Your task to perform on an android device: change your default location settings in chrome Image 0: 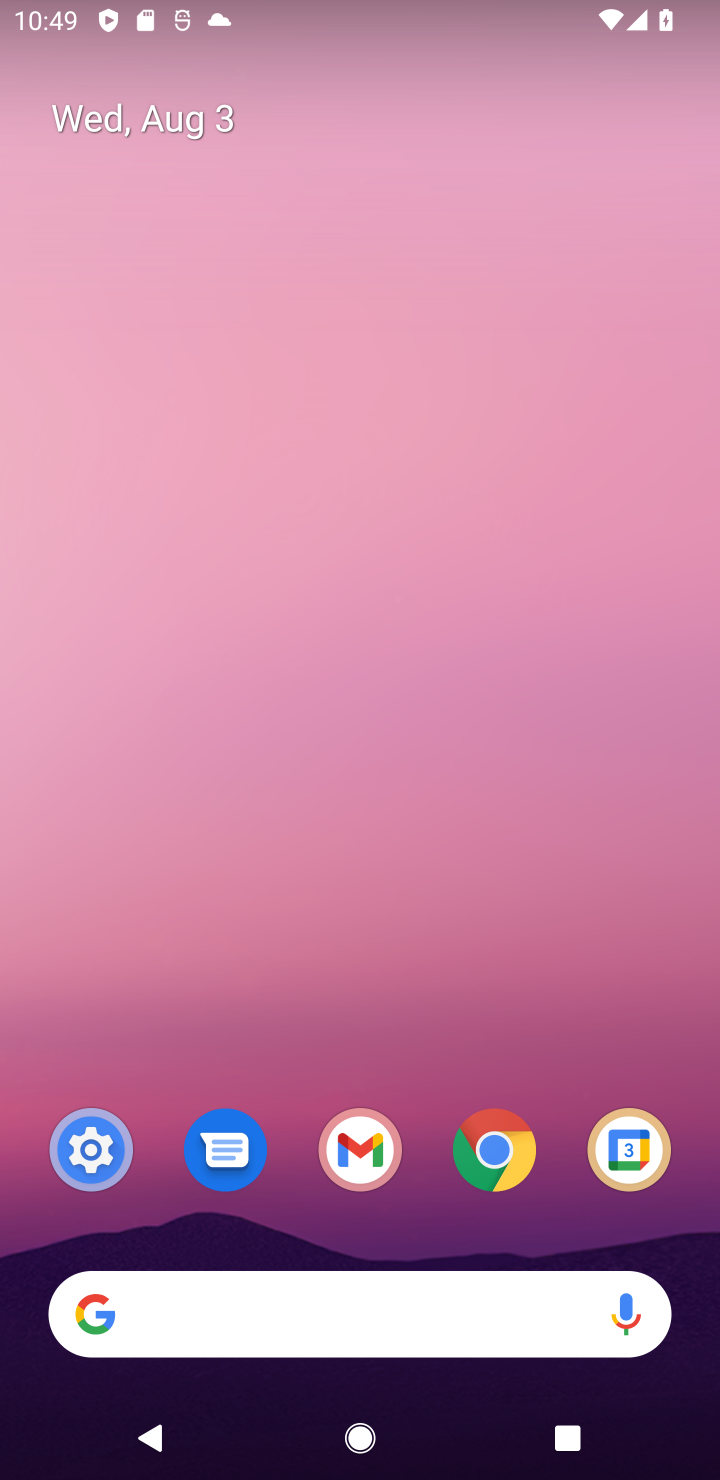
Step 0: press home button
Your task to perform on an android device: change your default location settings in chrome Image 1: 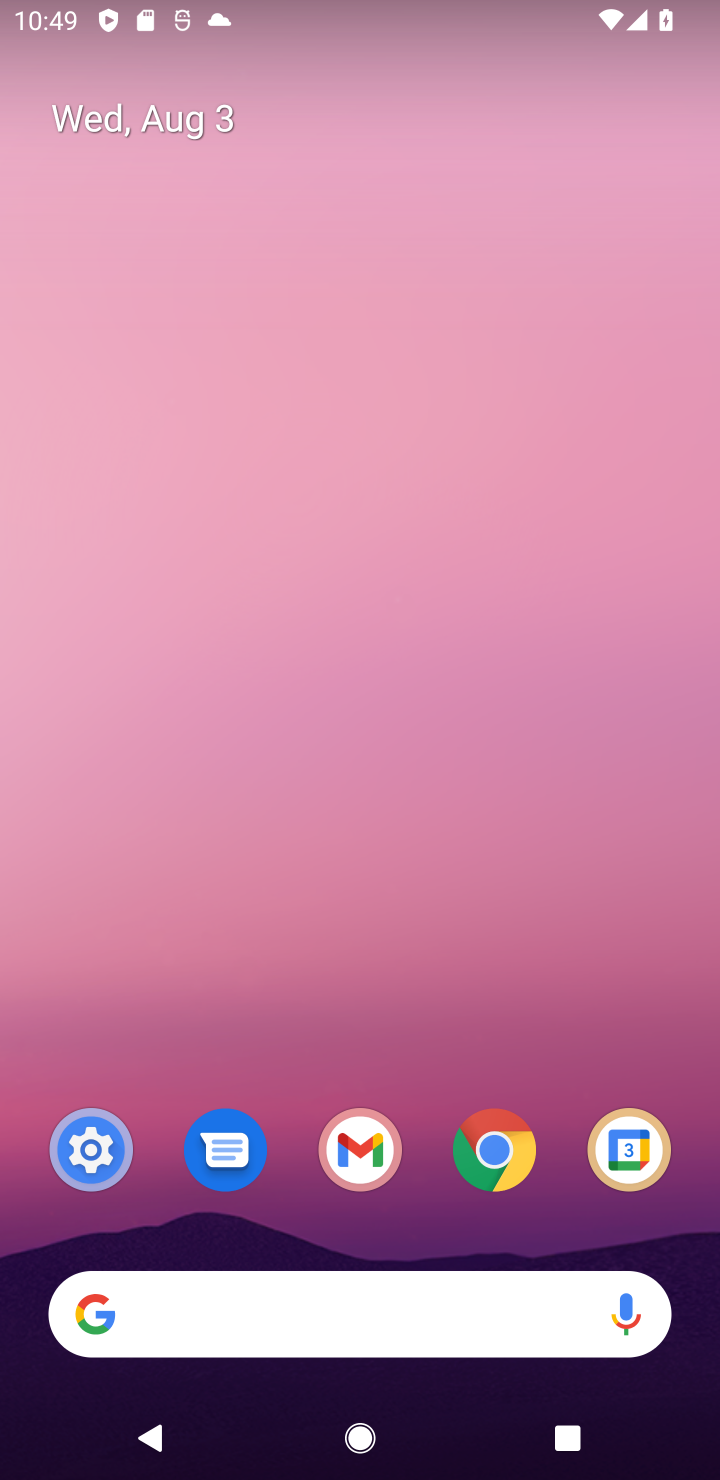
Step 1: drag from (554, 1026) to (563, 352)
Your task to perform on an android device: change your default location settings in chrome Image 2: 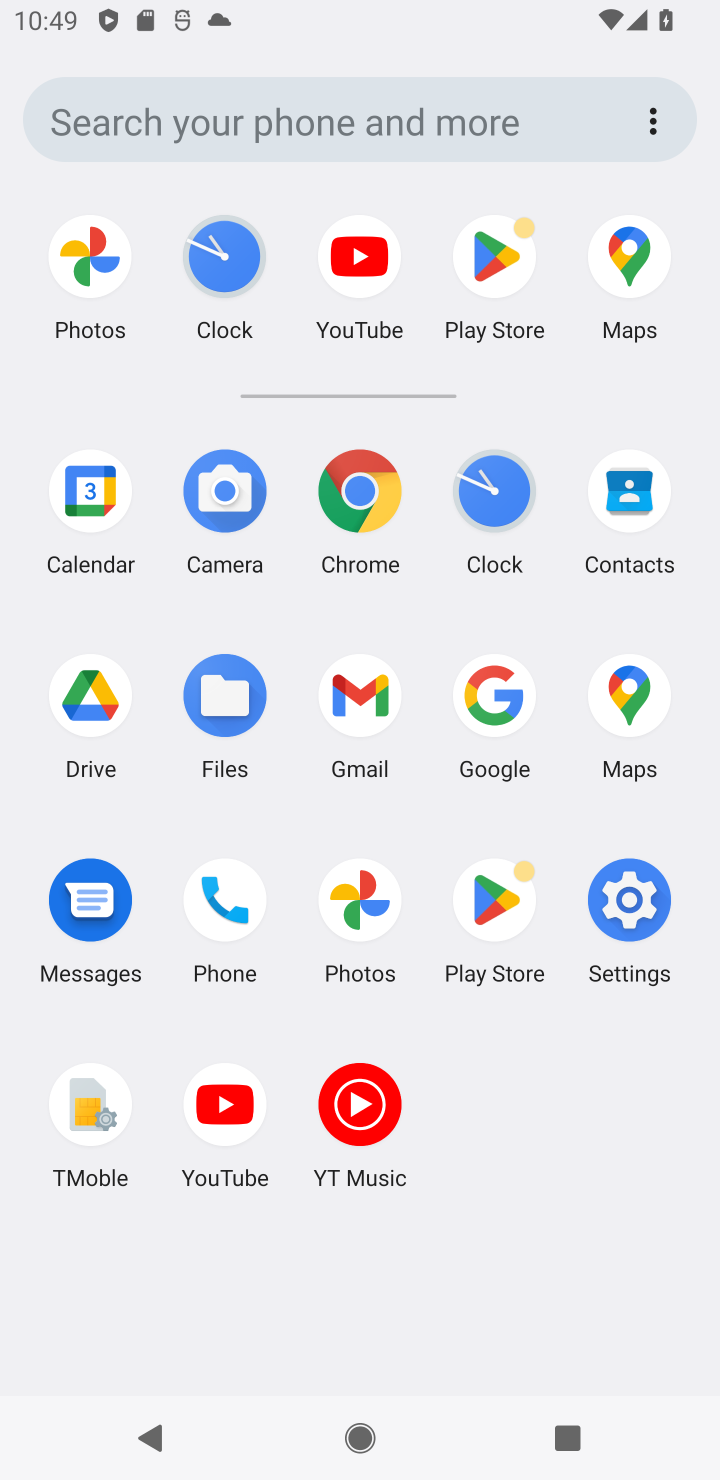
Step 2: click (361, 499)
Your task to perform on an android device: change your default location settings in chrome Image 3: 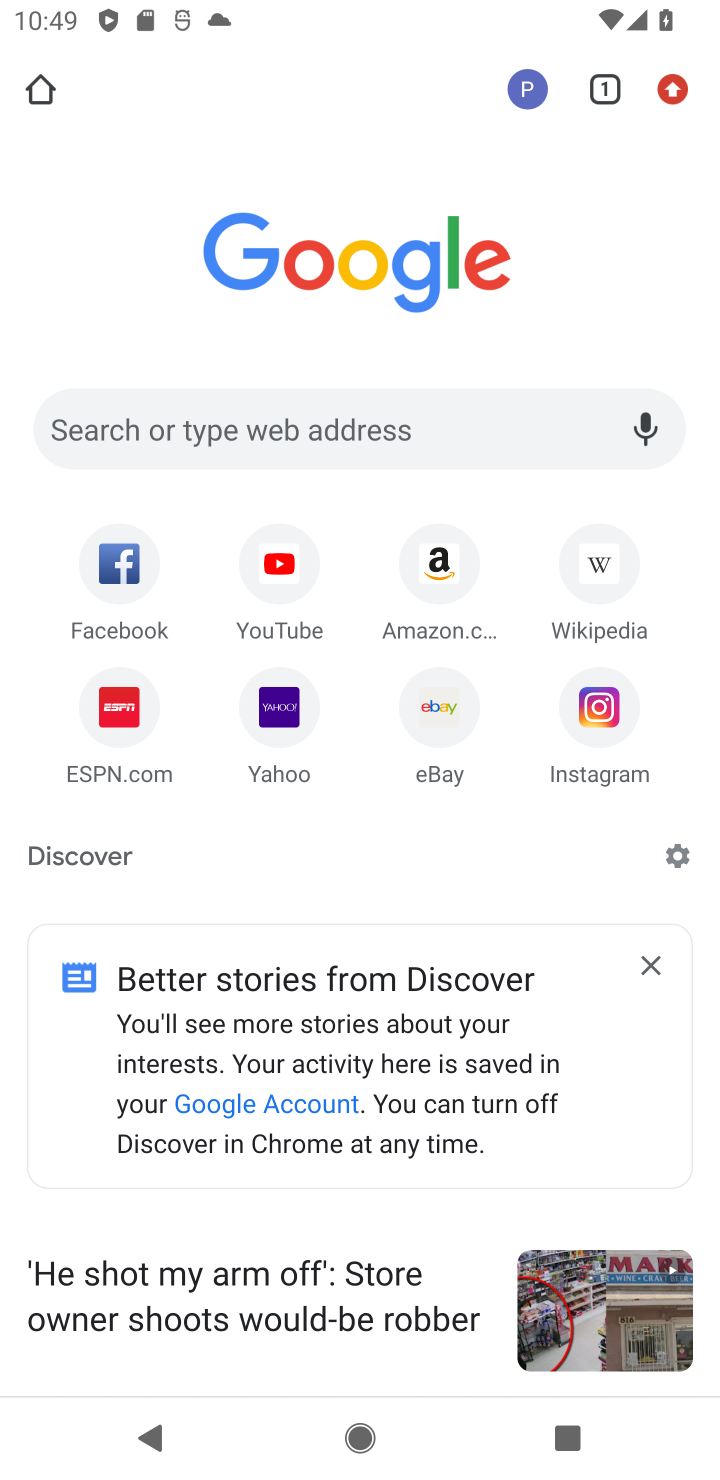
Step 3: click (671, 93)
Your task to perform on an android device: change your default location settings in chrome Image 4: 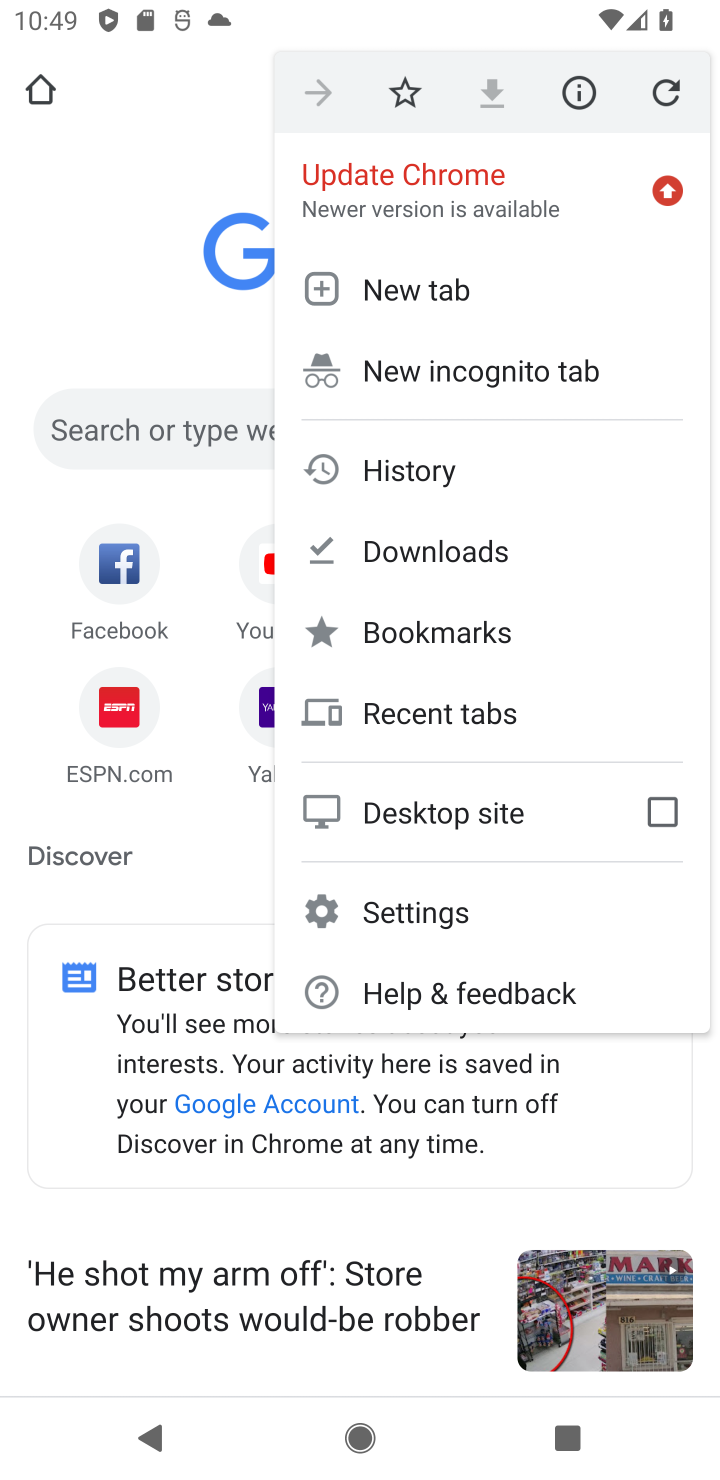
Step 4: click (519, 907)
Your task to perform on an android device: change your default location settings in chrome Image 5: 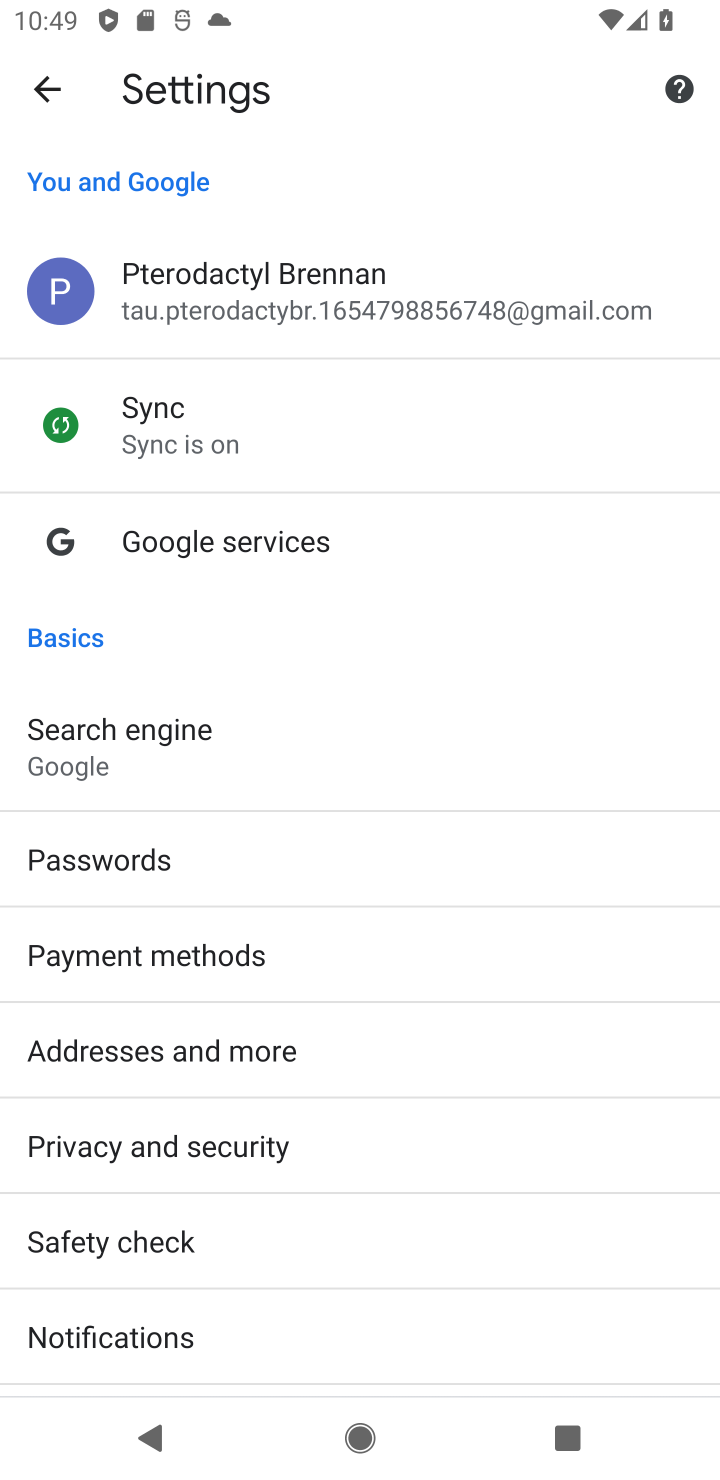
Step 5: drag from (497, 1042) to (534, 563)
Your task to perform on an android device: change your default location settings in chrome Image 6: 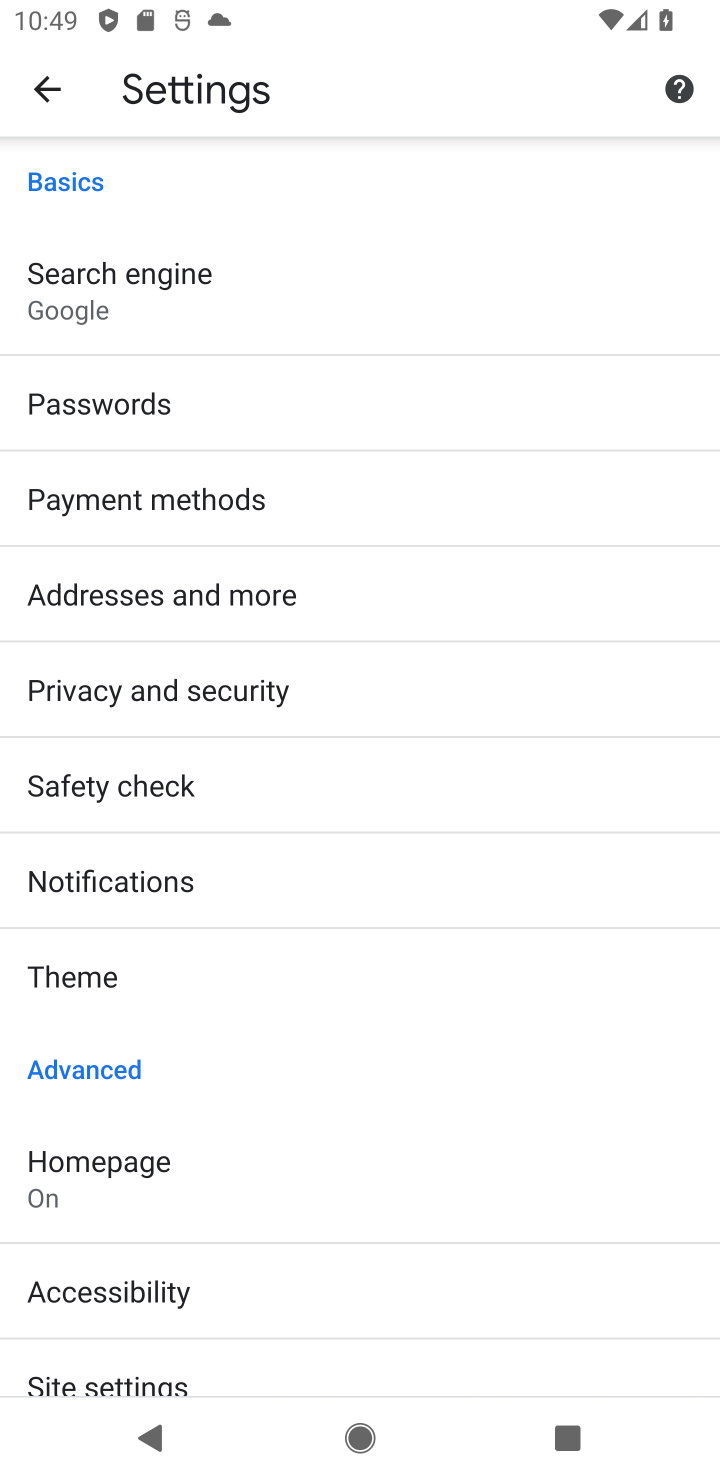
Step 6: drag from (538, 952) to (542, 684)
Your task to perform on an android device: change your default location settings in chrome Image 7: 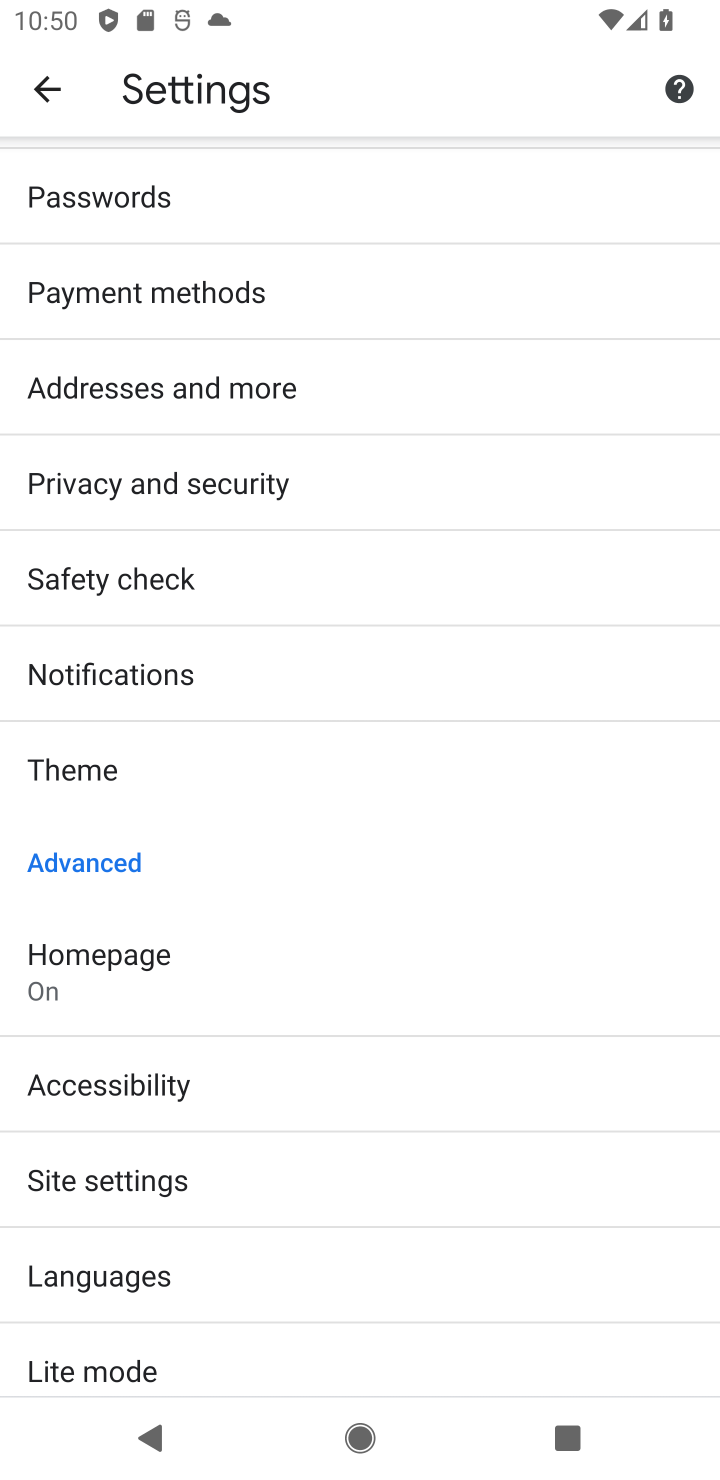
Step 7: drag from (468, 1127) to (496, 830)
Your task to perform on an android device: change your default location settings in chrome Image 8: 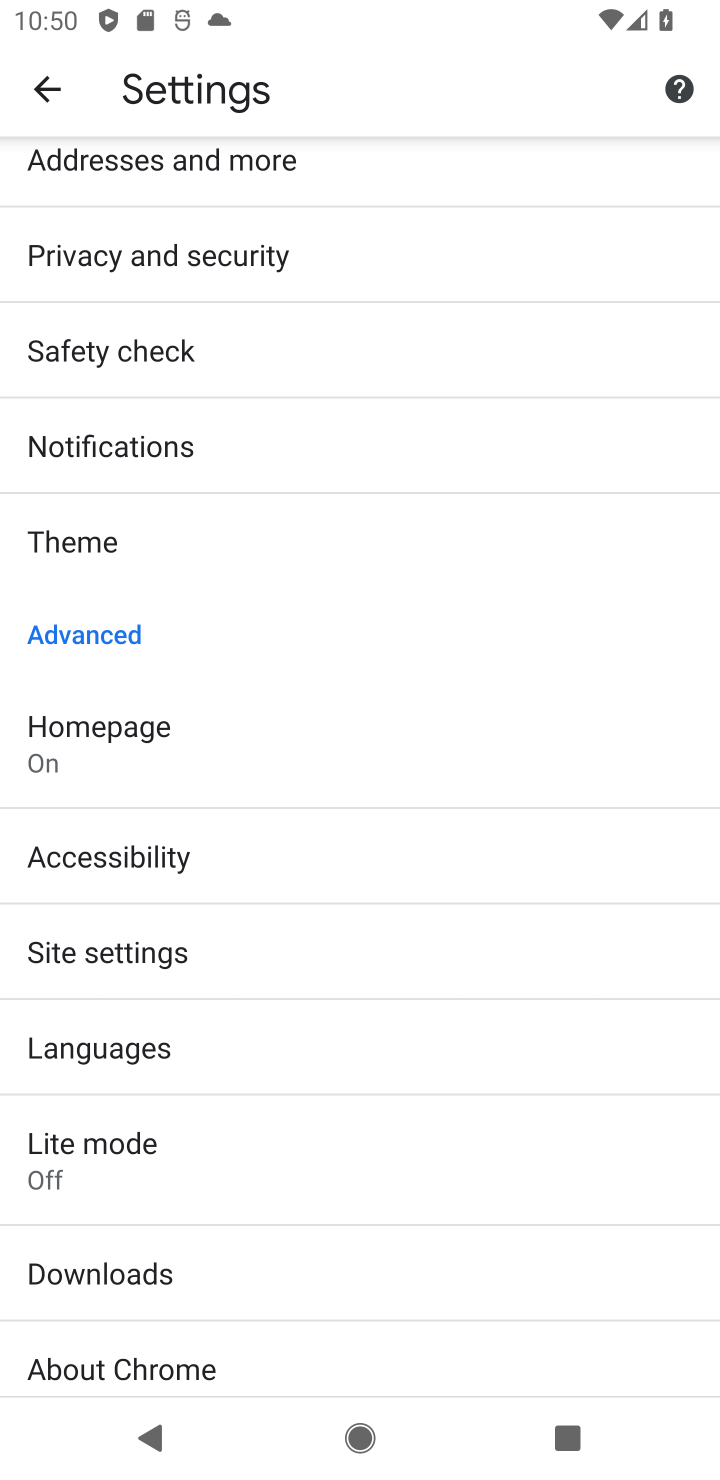
Step 8: click (492, 950)
Your task to perform on an android device: change your default location settings in chrome Image 9: 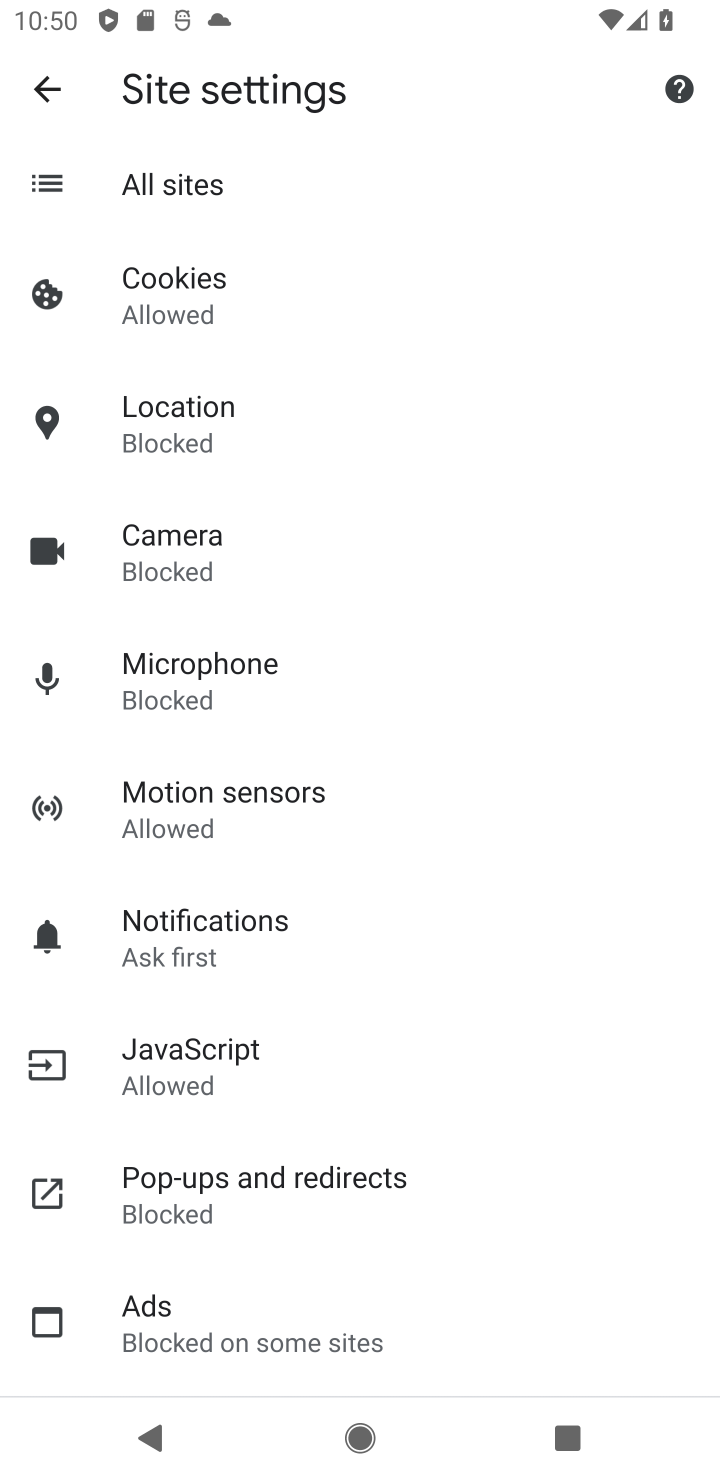
Step 9: click (202, 416)
Your task to perform on an android device: change your default location settings in chrome Image 10: 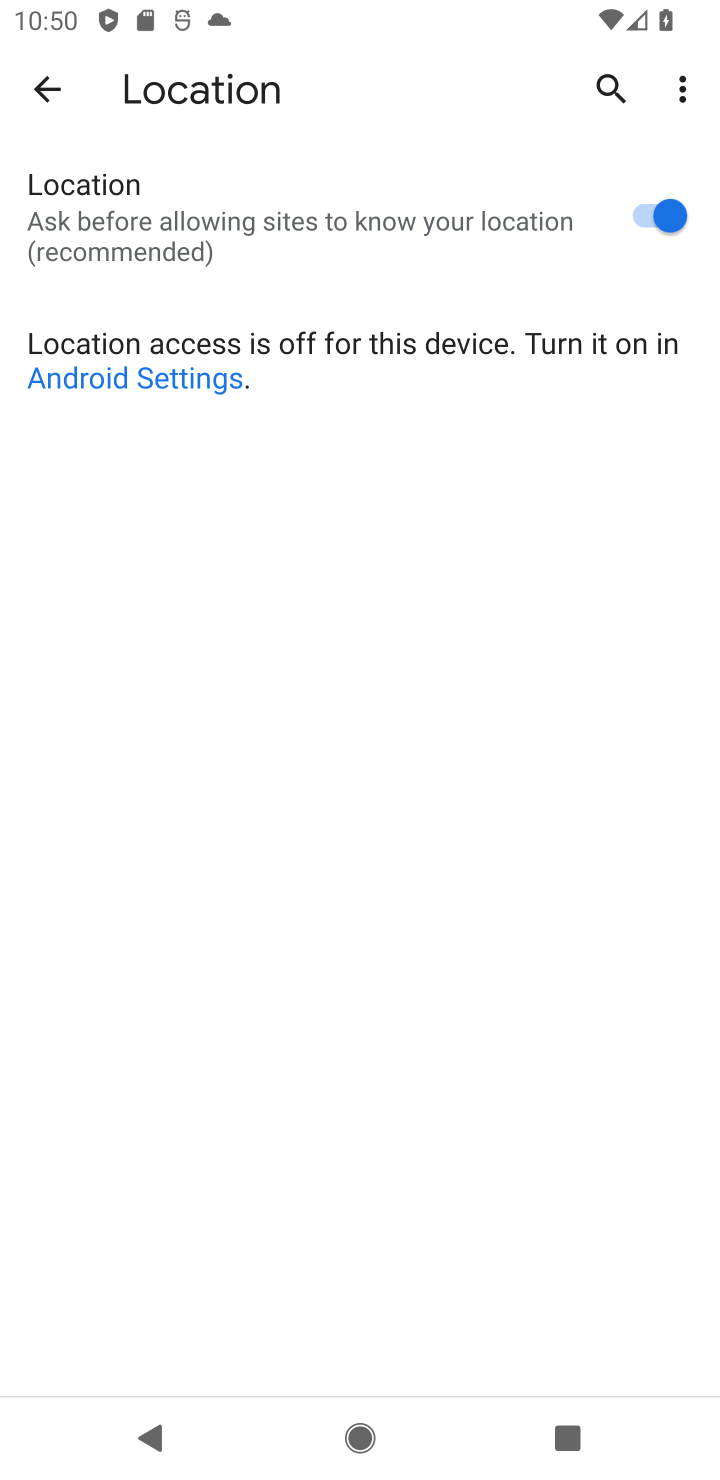
Step 10: click (679, 216)
Your task to perform on an android device: change your default location settings in chrome Image 11: 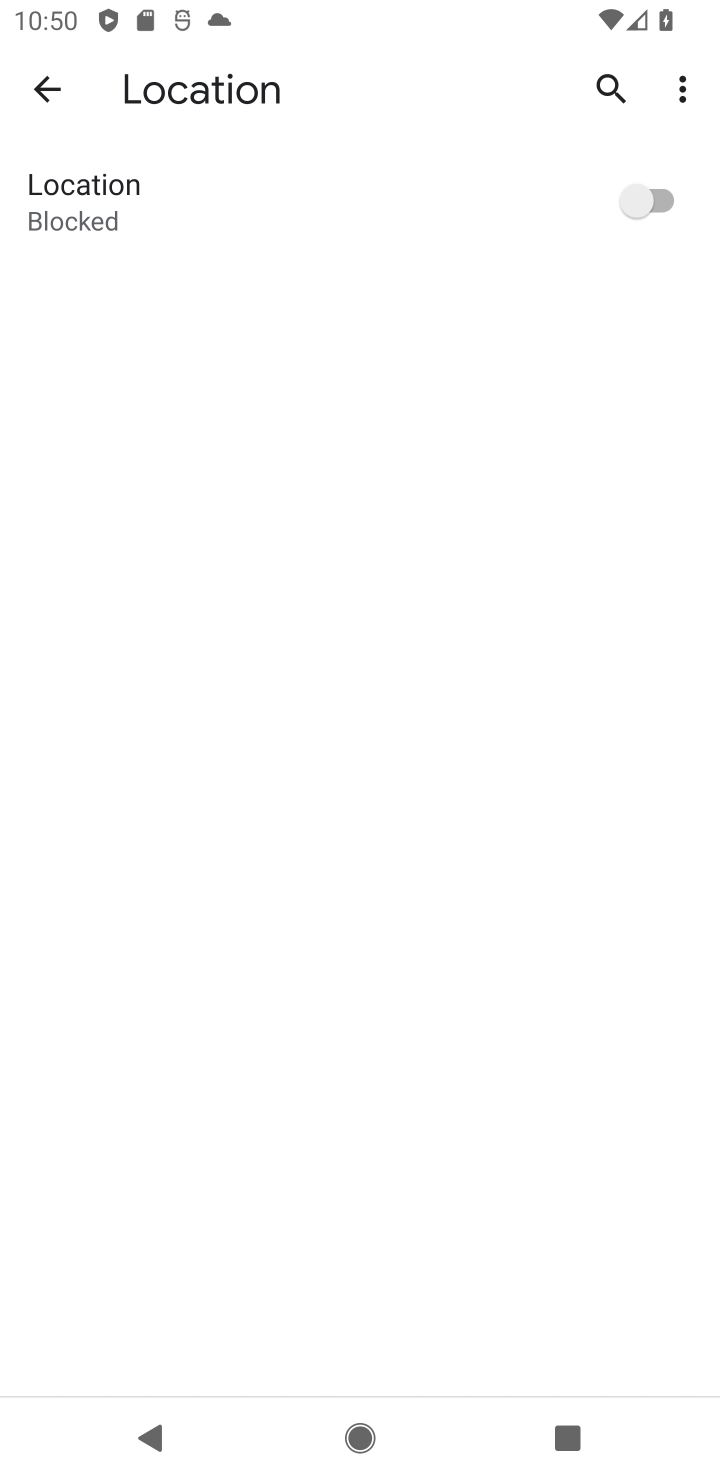
Step 11: task complete